Your task to perform on an android device: Show me popular games on the Play Store Image 0: 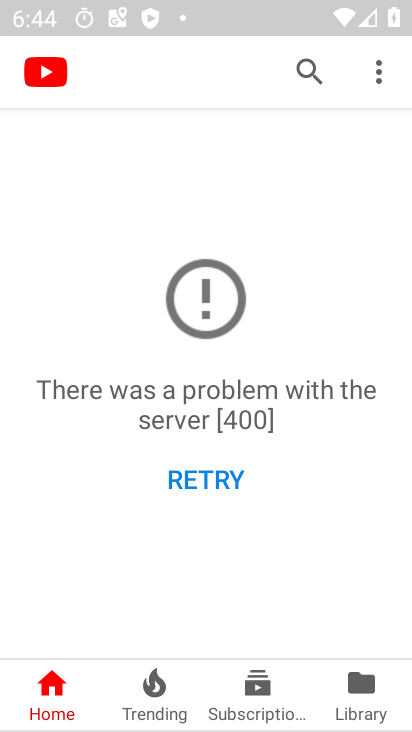
Step 0: press home button
Your task to perform on an android device: Show me popular games on the Play Store Image 1: 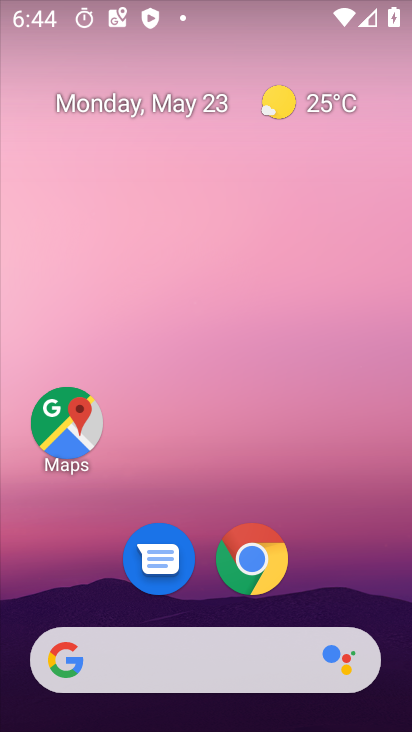
Step 1: drag from (398, 645) to (314, 119)
Your task to perform on an android device: Show me popular games on the Play Store Image 2: 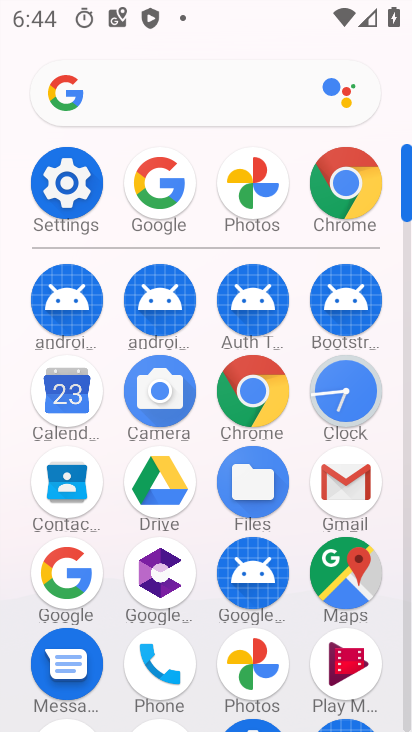
Step 2: drag from (210, 668) to (246, 125)
Your task to perform on an android device: Show me popular games on the Play Store Image 3: 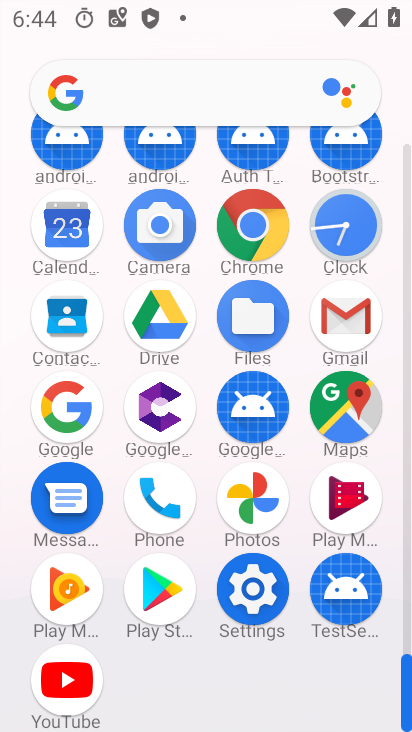
Step 3: click (140, 591)
Your task to perform on an android device: Show me popular games on the Play Store Image 4: 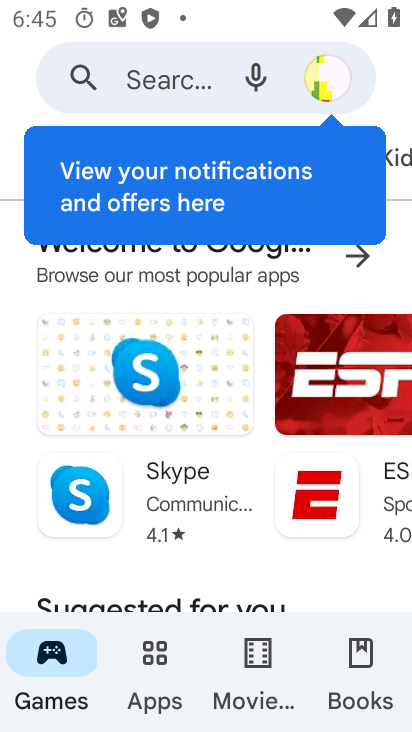
Step 4: task complete